Your task to perform on an android device: set the stopwatch Image 0: 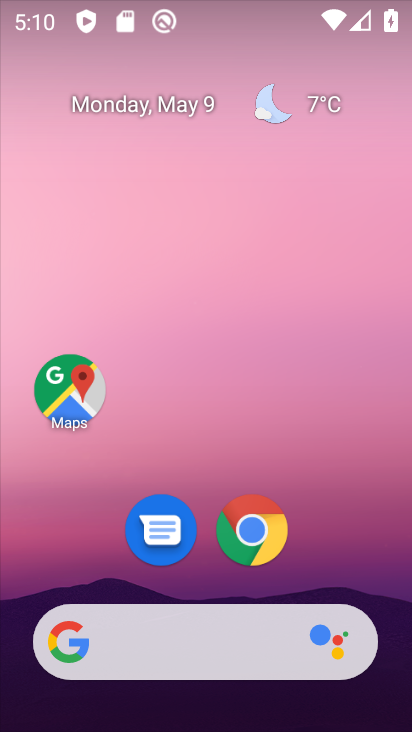
Step 0: drag from (318, 593) to (232, 114)
Your task to perform on an android device: set the stopwatch Image 1: 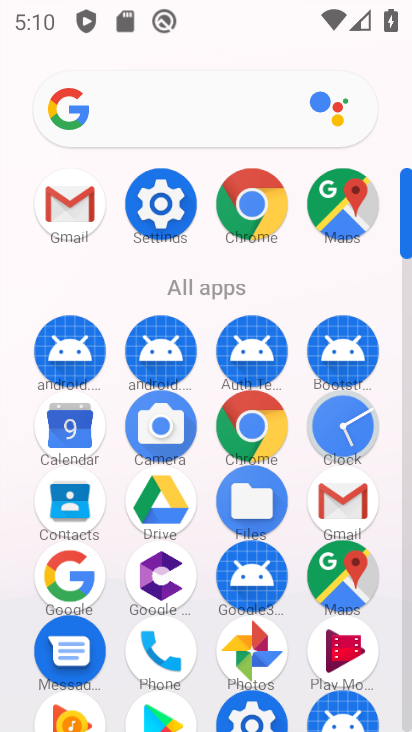
Step 1: click (352, 434)
Your task to perform on an android device: set the stopwatch Image 2: 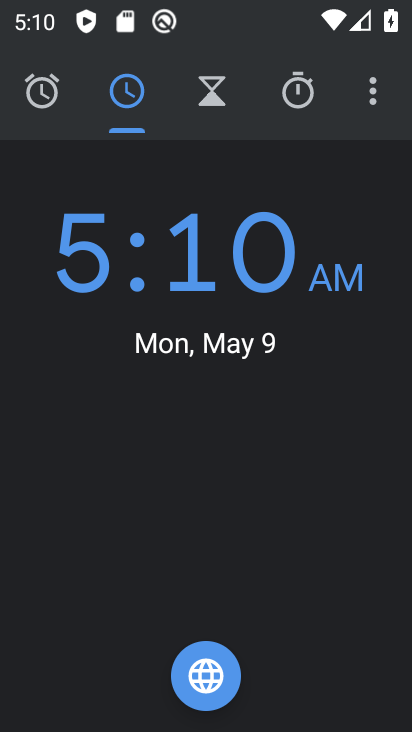
Step 2: click (377, 84)
Your task to perform on an android device: set the stopwatch Image 3: 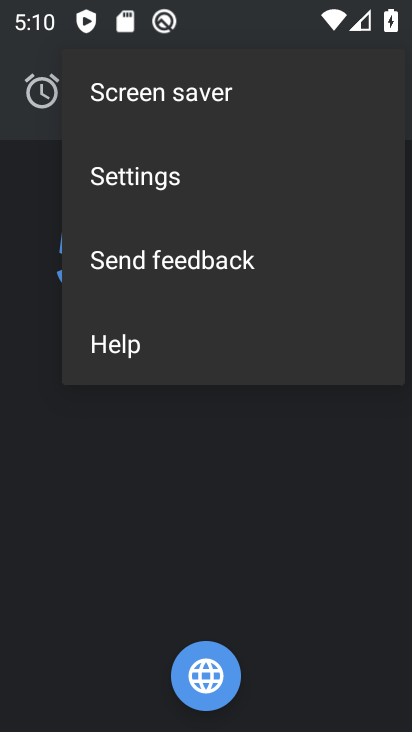
Step 3: click (60, 300)
Your task to perform on an android device: set the stopwatch Image 4: 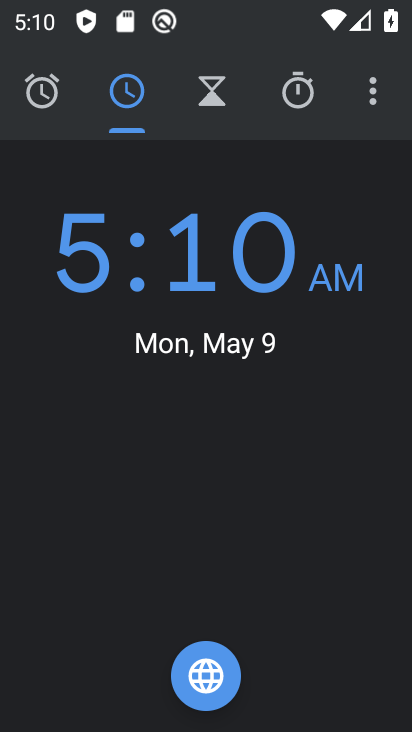
Step 4: click (292, 91)
Your task to perform on an android device: set the stopwatch Image 5: 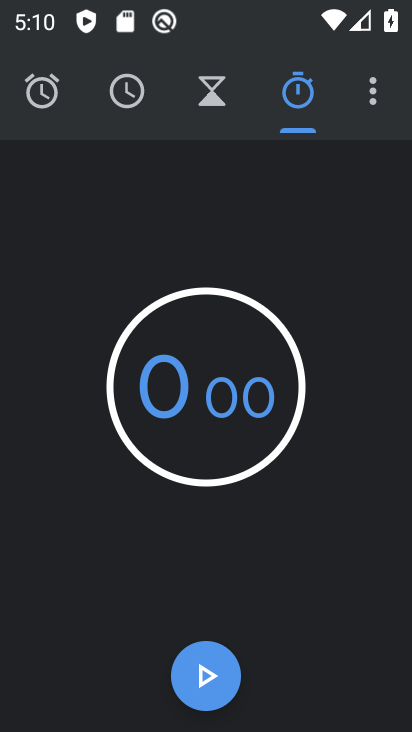
Step 5: click (204, 667)
Your task to perform on an android device: set the stopwatch Image 6: 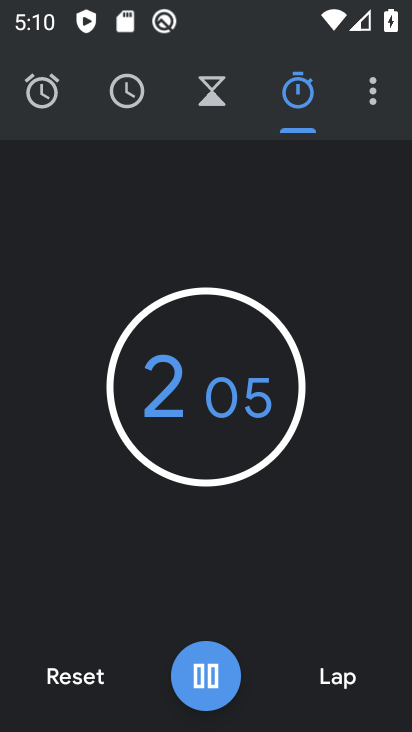
Step 6: task complete